Your task to perform on an android device: Open Google Maps Image 0: 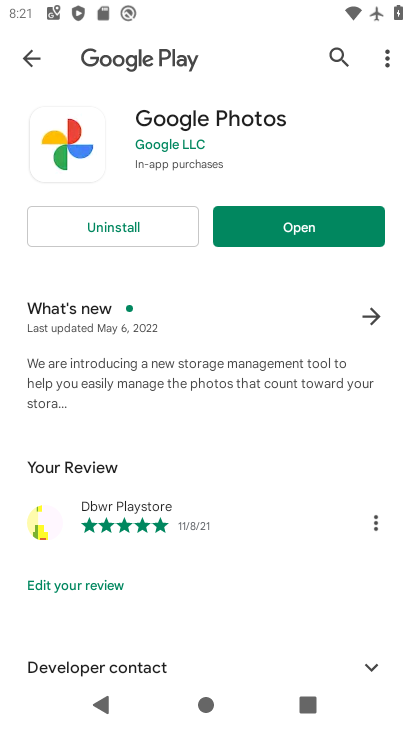
Step 0: click (35, 60)
Your task to perform on an android device: Open Google Maps Image 1: 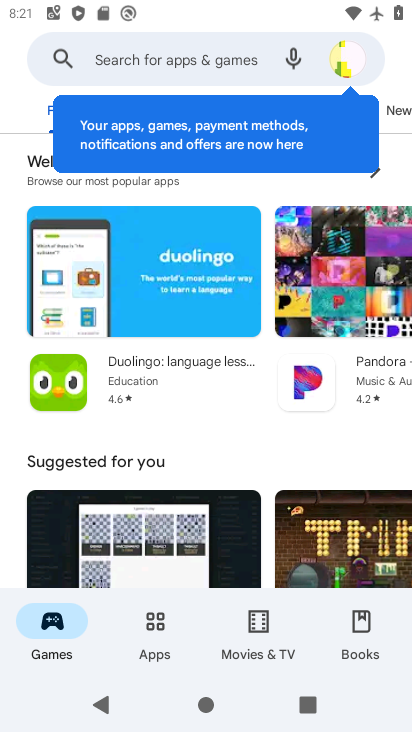
Step 1: press home button
Your task to perform on an android device: Open Google Maps Image 2: 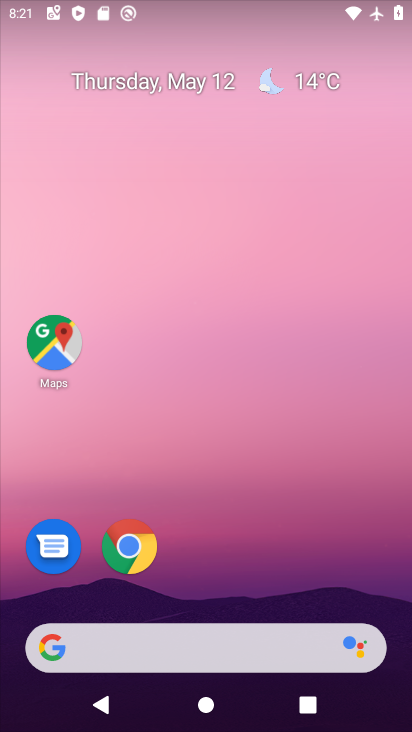
Step 2: click (66, 359)
Your task to perform on an android device: Open Google Maps Image 3: 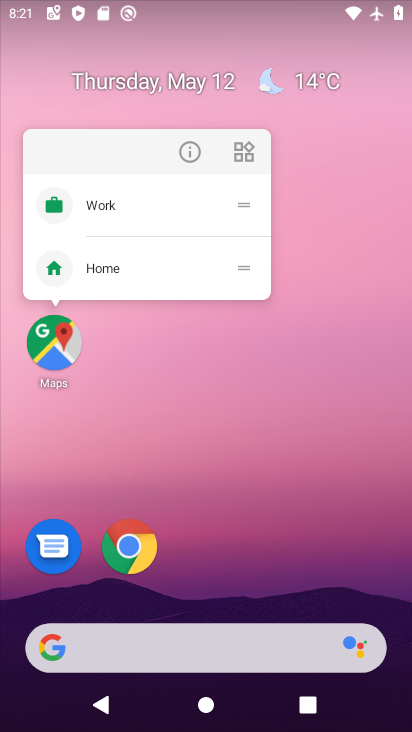
Step 3: click (51, 349)
Your task to perform on an android device: Open Google Maps Image 4: 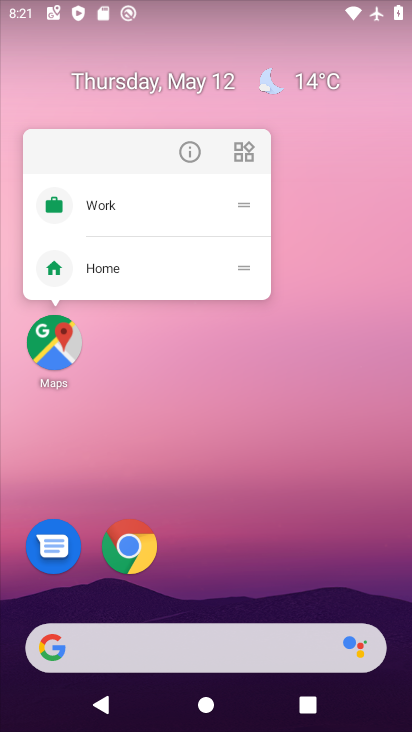
Step 4: click (63, 339)
Your task to perform on an android device: Open Google Maps Image 5: 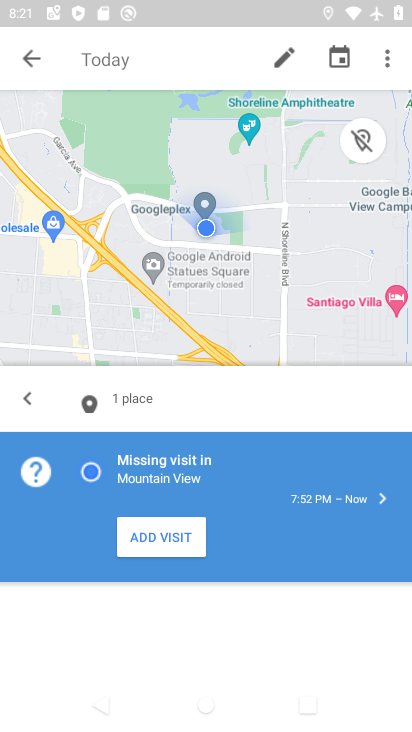
Step 5: task complete